Your task to perform on an android device: Go to notification settings Image 0: 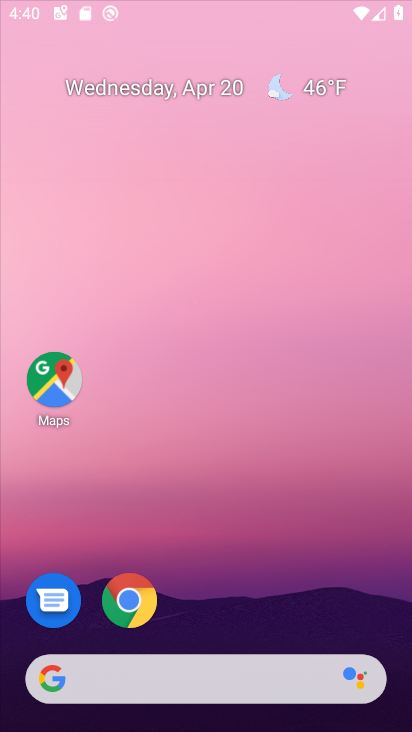
Step 0: click (216, 16)
Your task to perform on an android device: Go to notification settings Image 1: 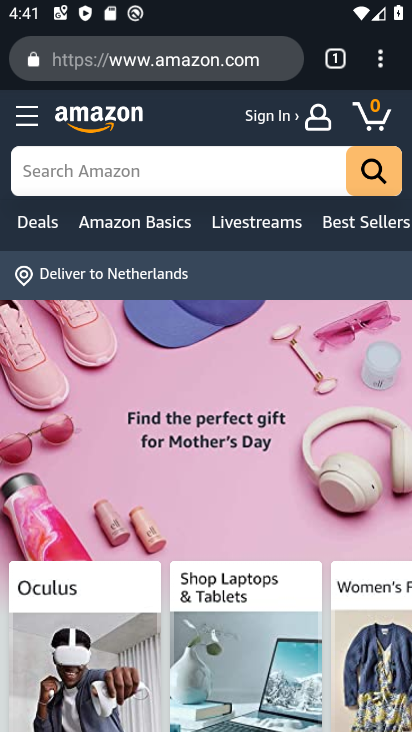
Step 1: press home button
Your task to perform on an android device: Go to notification settings Image 2: 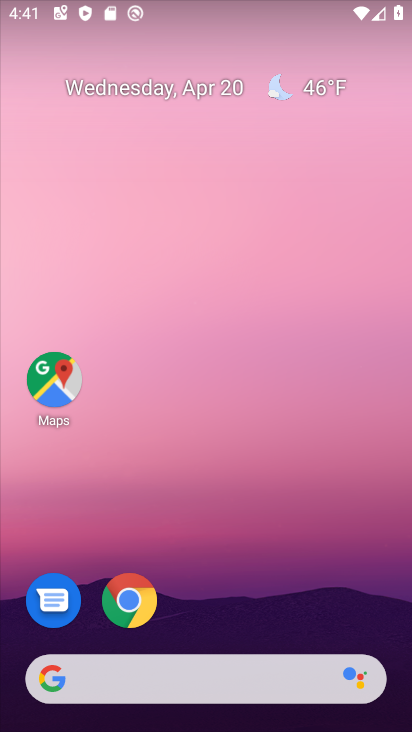
Step 2: drag from (219, 617) to (271, 68)
Your task to perform on an android device: Go to notification settings Image 3: 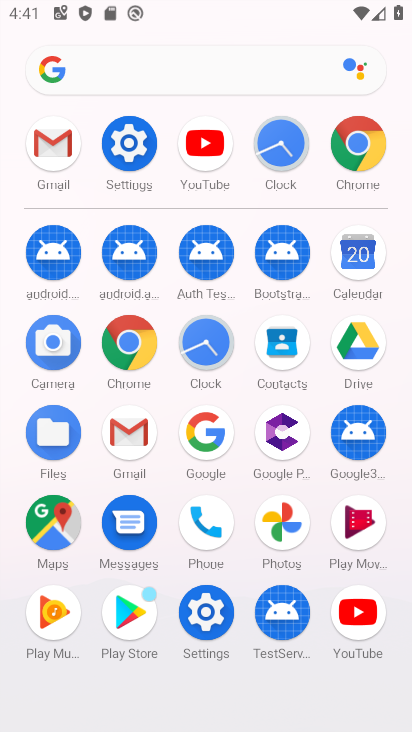
Step 3: click (208, 607)
Your task to perform on an android device: Go to notification settings Image 4: 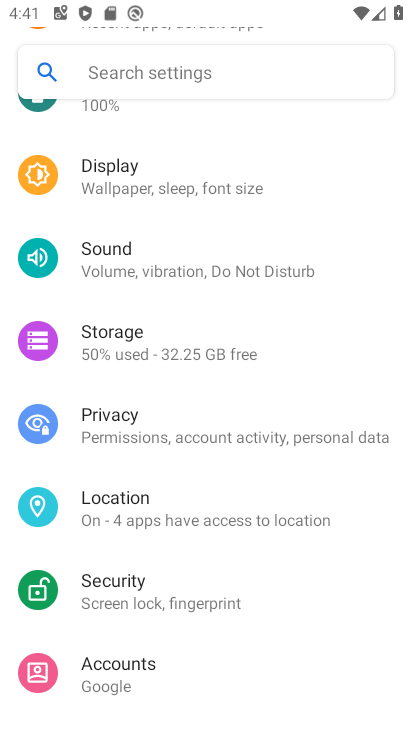
Step 4: drag from (147, 135) to (155, 670)
Your task to perform on an android device: Go to notification settings Image 5: 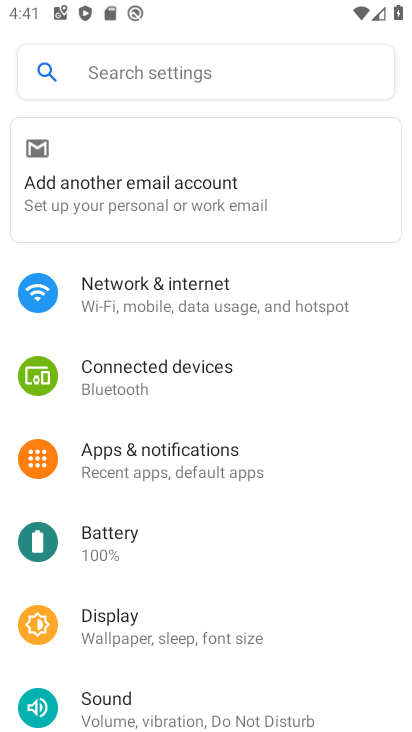
Step 5: click (255, 447)
Your task to perform on an android device: Go to notification settings Image 6: 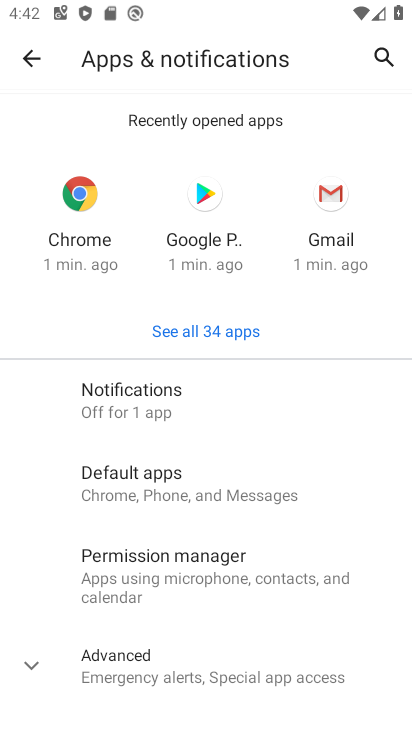
Step 6: click (200, 395)
Your task to perform on an android device: Go to notification settings Image 7: 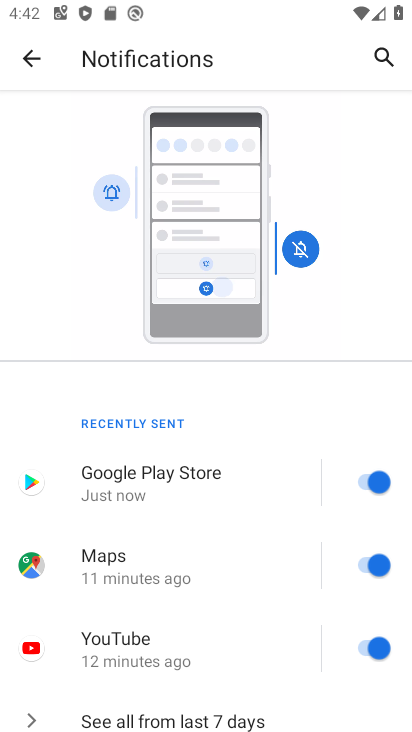
Step 7: drag from (258, 653) to (260, 154)
Your task to perform on an android device: Go to notification settings Image 8: 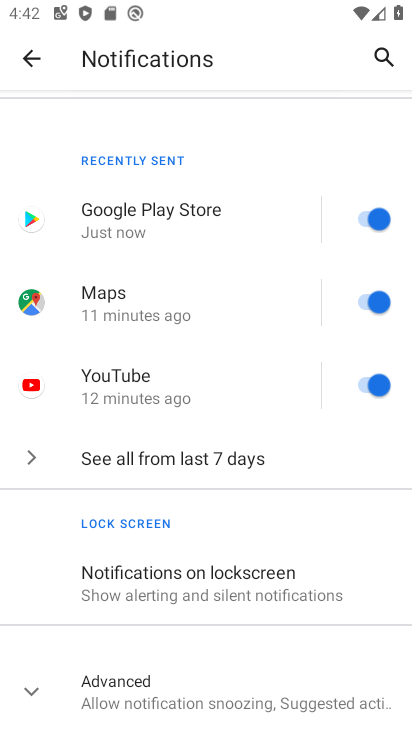
Step 8: click (372, 216)
Your task to perform on an android device: Go to notification settings Image 9: 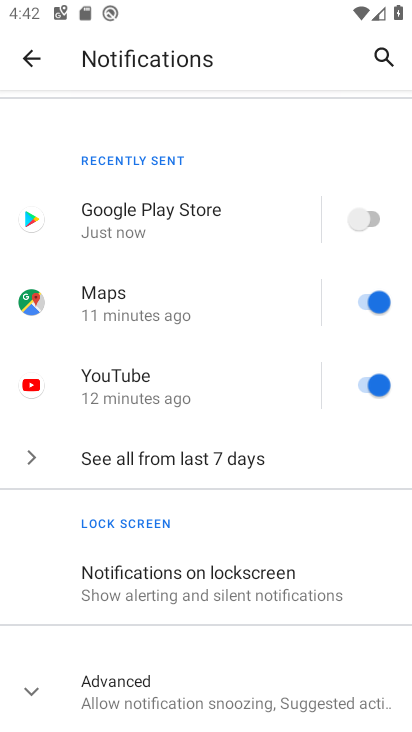
Step 9: click (373, 299)
Your task to perform on an android device: Go to notification settings Image 10: 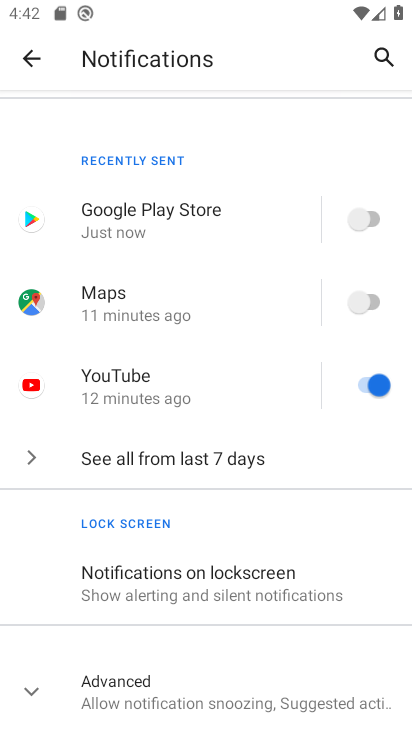
Step 10: click (378, 376)
Your task to perform on an android device: Go to notification settings Image 11: 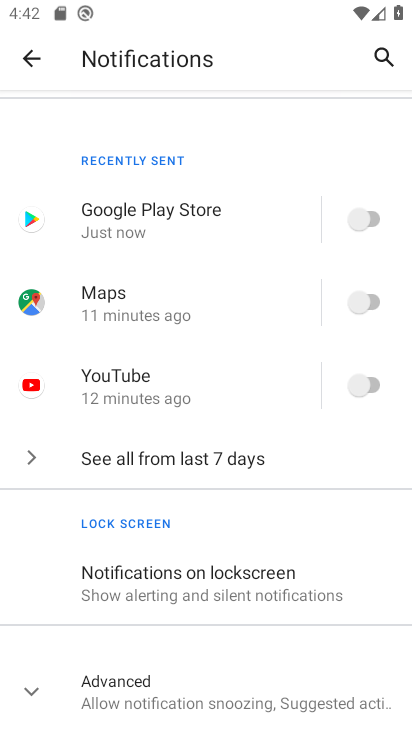
Step 11: click (212, 585)
Your task to perform on an android device: Go to notification settings Image 12: 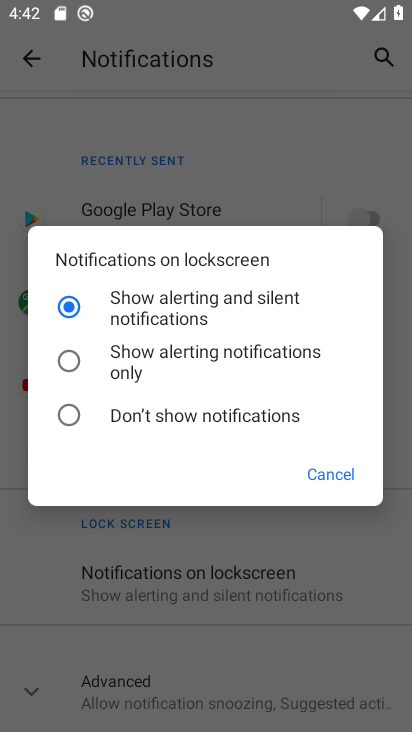
Step 12: click (77, 353)
Your task to perform on an android device: Go to notification settings Image 13: 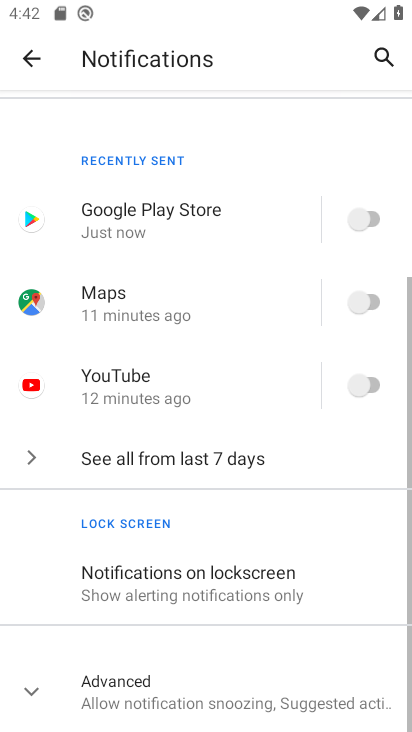
Step 13: task complete